Your task to perform on an android device: stop showing notifications on the lock screen Image 0: 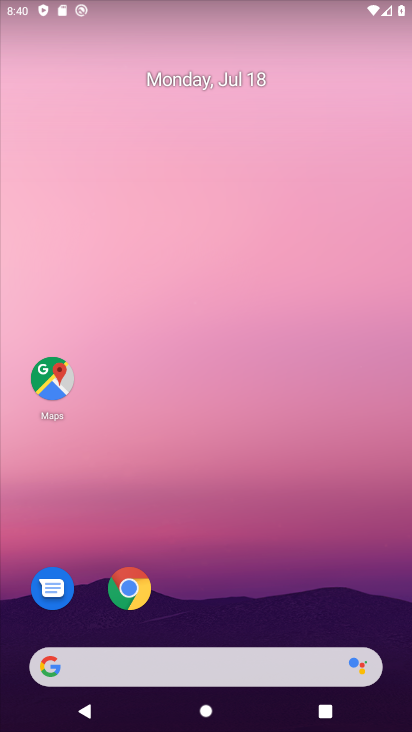
Step 0: drag from (243, 579) to (243, 127)
Your task to perform on an android device: stop showing notifications on the lock screen Image 1: 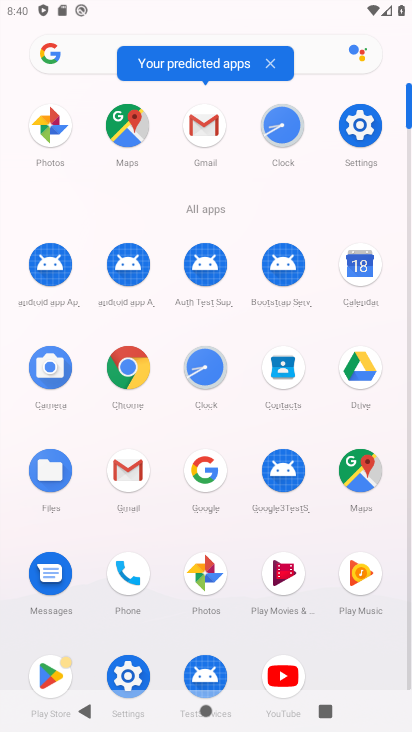
Step 1: click (357, 118)
Your task to perform on an android device: stop showing notifications on the lock screen Image 2: 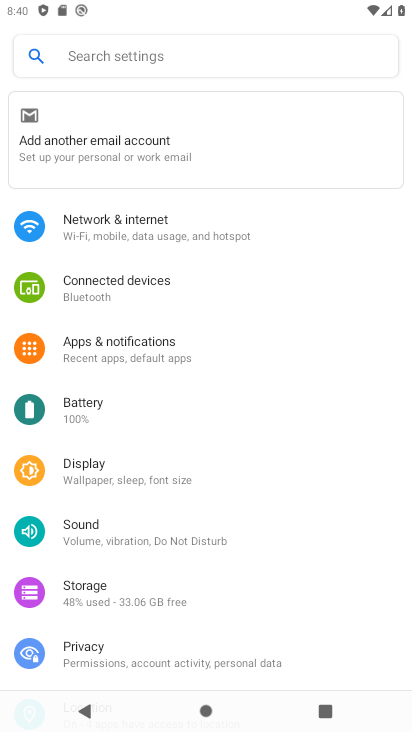
Step 2: click (189, 348)
Your task to perform on an android device: stop showing notifications on the lock screen Image 3: 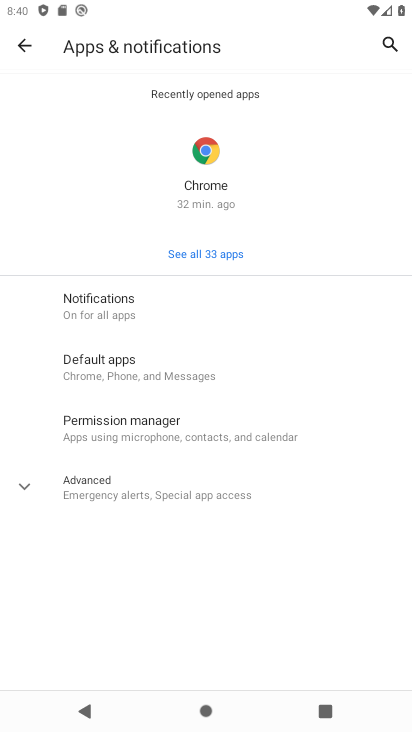
Step 3: click (108, 297)
Your task to perform on an android device: stop showing notifications on the lock screen Image 4: 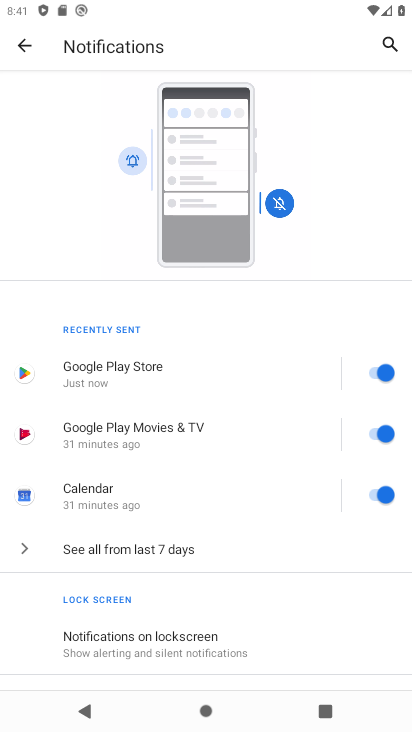
Step 4: click (161, 637)
Your task to perform on an android device: stop showing notifications on the lock screen Image 5: 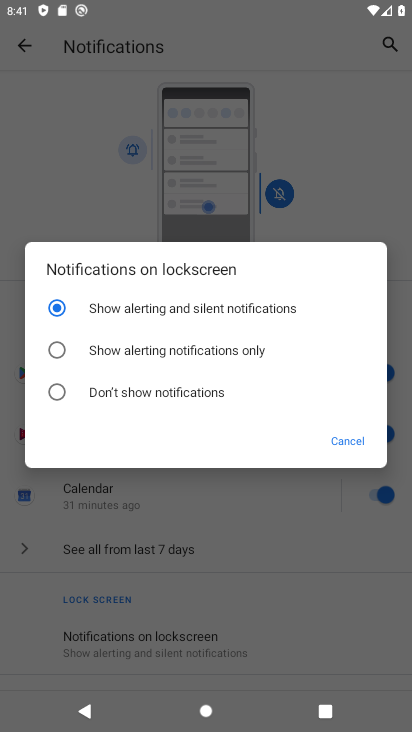
Step 5: click (199, 386)
Your task to perform on an android device: stop showing notifications on the lock screen Image 6: 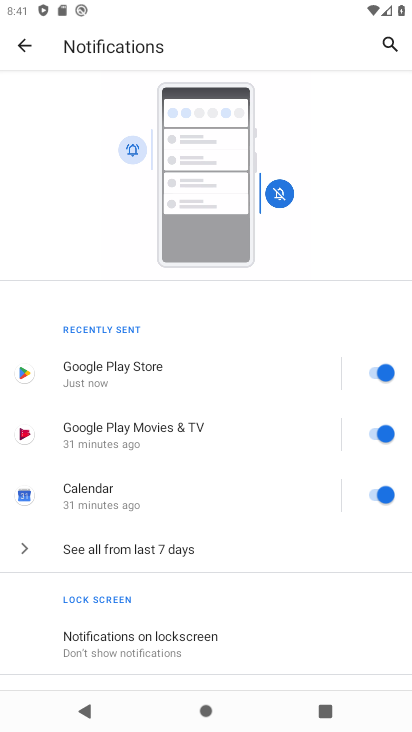
Step 6: task complete